Your task to perform on an android device: read, delete, or share a saved page in the chrome app Image 0: 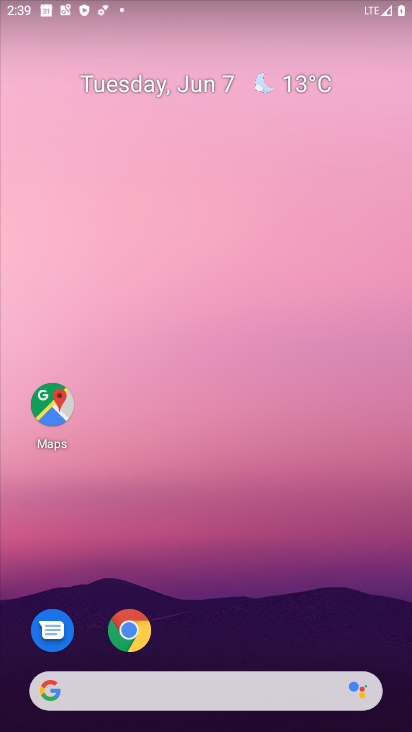
Step 0: click (131, 629)
Your task to perform on an android device: read, delete, or share a saved page in the chrome app Image 1: 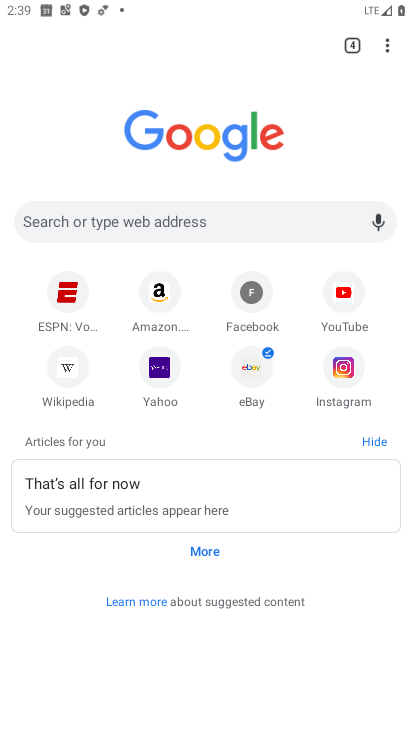
Step 1: click (373, 40)
Your task to perform on an android device: read, delete, or share a saved page in the chrome app Image 2: 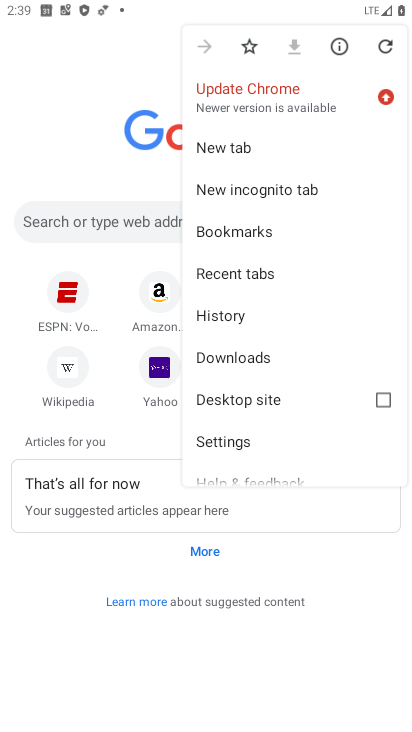
Step 2: click (202, 435)
Your task to perform on an android device: read, delete, or share a saved page in the chrome app Image 3: 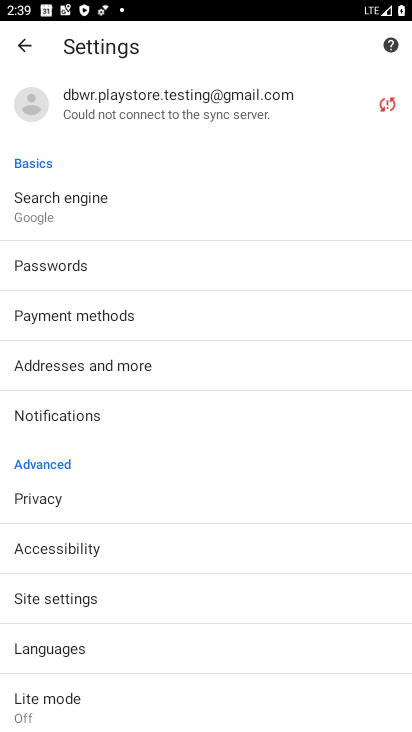
Step 3: click (157, 710)
Your task to perform on an android device: read, delete, or share a saved page in the chrome app Image 4: 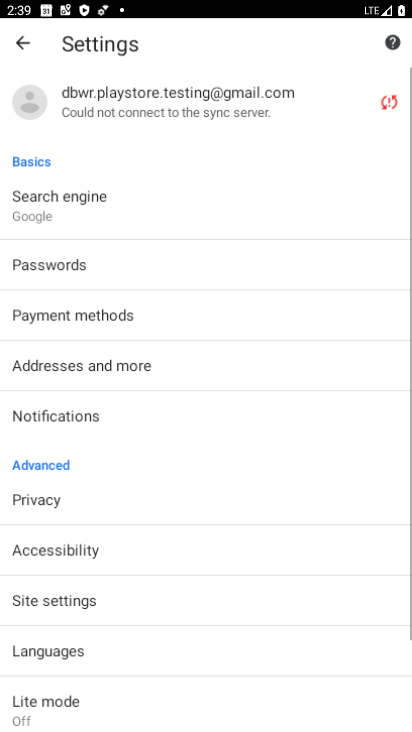
Step 4: task complete